Your task to perform on an android device: toggle priority inbox in the gmail app Image 0: 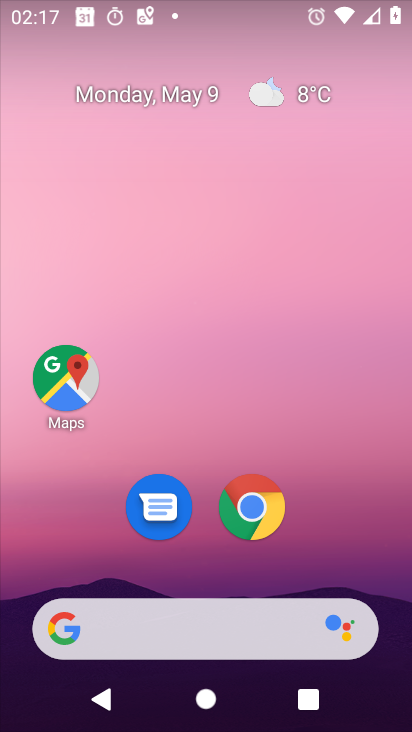
Step 0: drag from (205, 728) to (203, 158)
Your task to perform on an android device: toggle priority inbox in the gmail app Image 1: 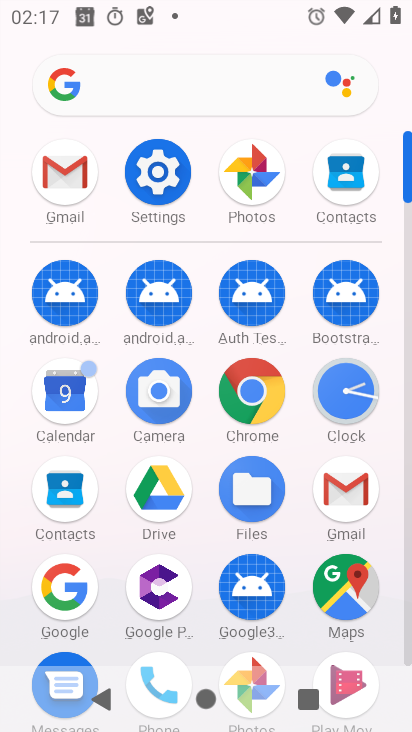
Step 1: click (348, 486)
Your task to perform on an android device: toggle priority inbox in the gmail app Image 2: 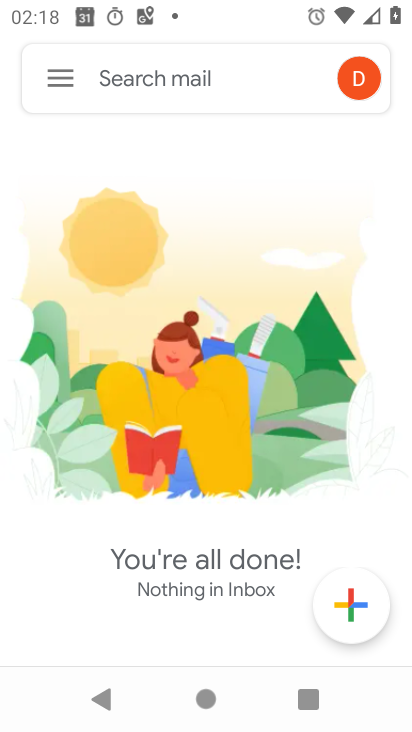
Step 2: click (59, 76)
Your task to perform on an android device: toggle priority inbox in the gmail app Image 3: 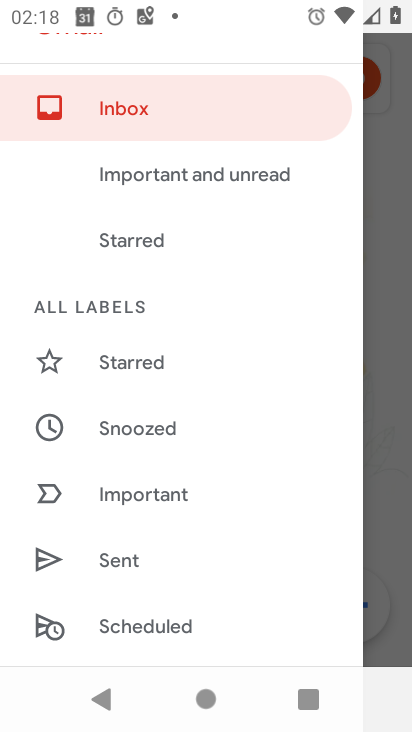
Step 3: drag from (147, 595) to (142, 284)
Your task to perform on an android device: toggle priority inbox in the gmail app Image 4: 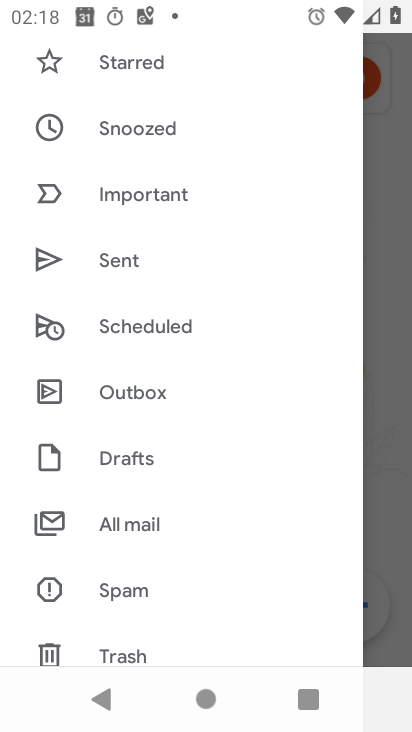
Step 4: drag from (161, 594) to (162, 326)
Your task to perform on an android device: toggle priority inbox in the gmail app Image 5: 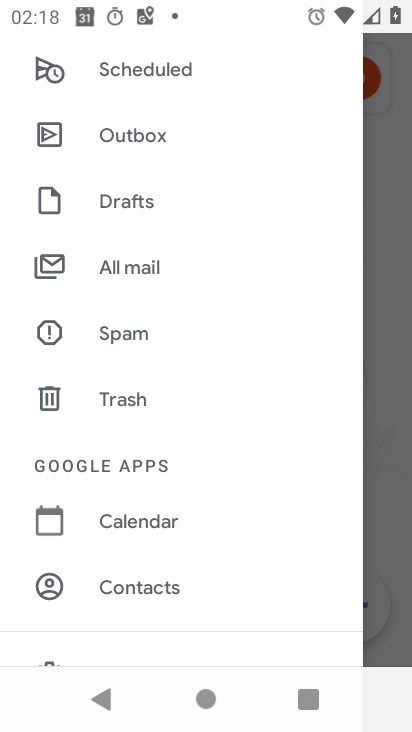
Step 5: drag from (147, 608) to (147, 303)
Your task to perform on an android device: toggle priority inbox in the gmail app Image 6: 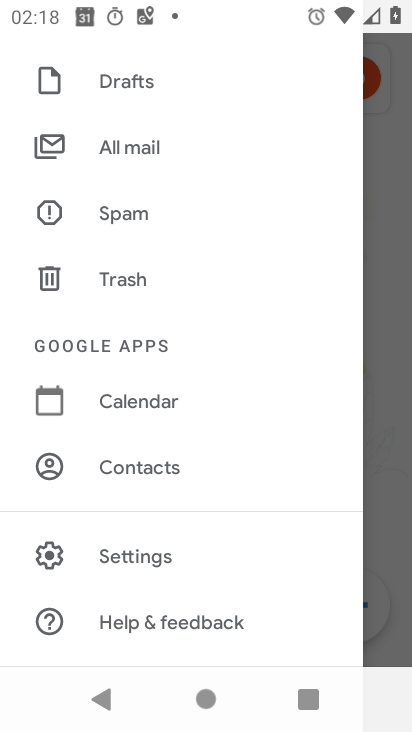
Step 6: click (129, 554)
Your task to perform on an android device: toggle priority inbox in the gmail app Image 7: 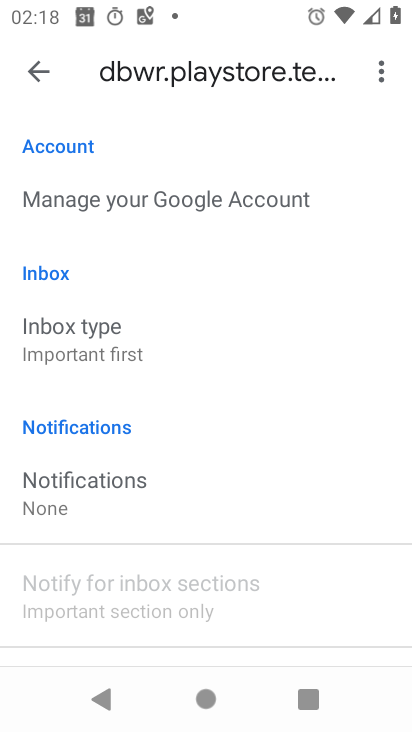
Step 7: click (84, 340)
Your task to perform on an android device: toggle priority inbox in the gmail app Image 8: 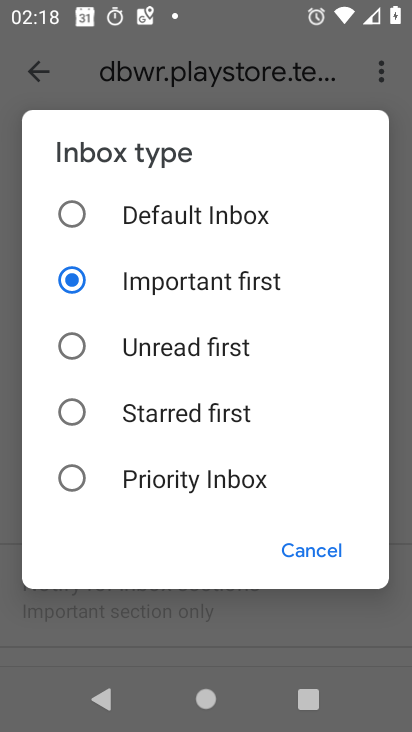
Step 8: click (70, 474)
Your task to perform on an android device: toggle priority inbox in the gmail app Image 9: 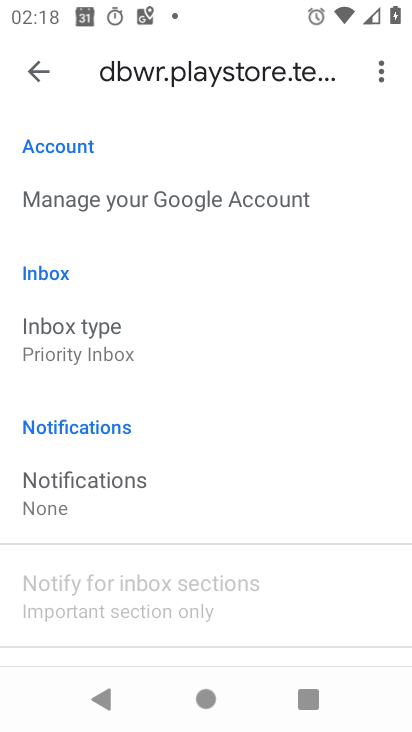
Step 9: task complete